Your task to perform on an android device: Open Google Maps Image 0: 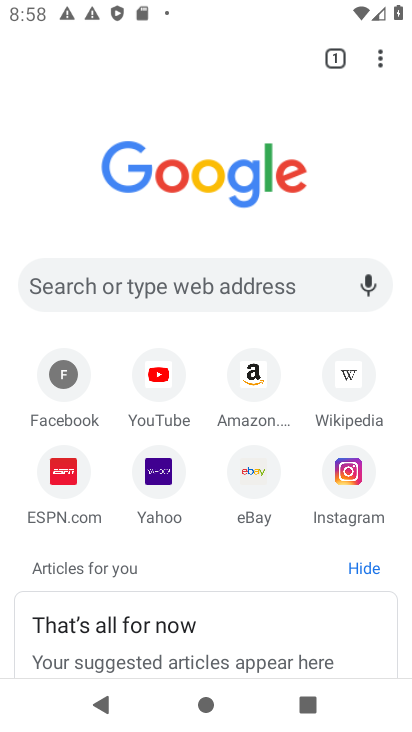
Step 0: press home button
Your task to perform on an android device: Open Google Maps Image 1: 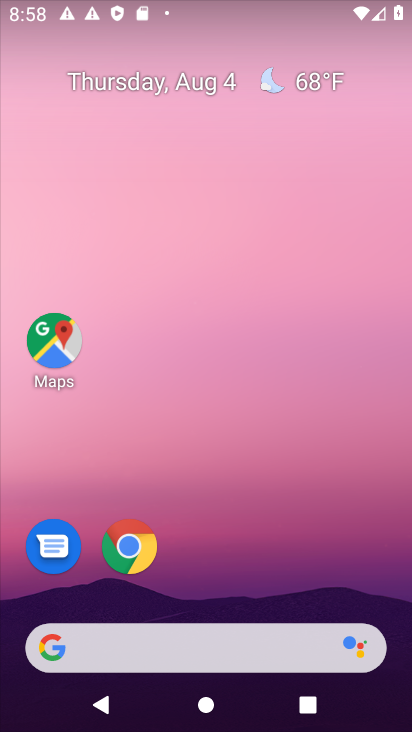
Step 1: click (54, 343)
Your task to perform on an android device: Open Google Maps Image 2: 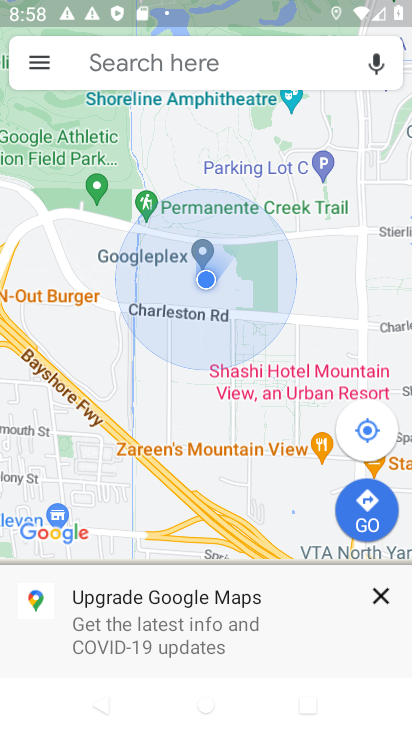
Step 2: click (381, 596)
Your task to perform on an android device: Open Google Maps Image 3: 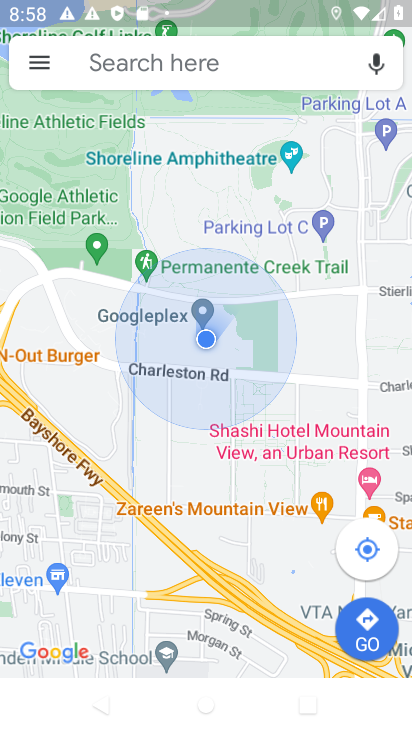
Step 3: task complete